Your task to perform on an android device: Open the calendar and show me this week's events? Image 0: 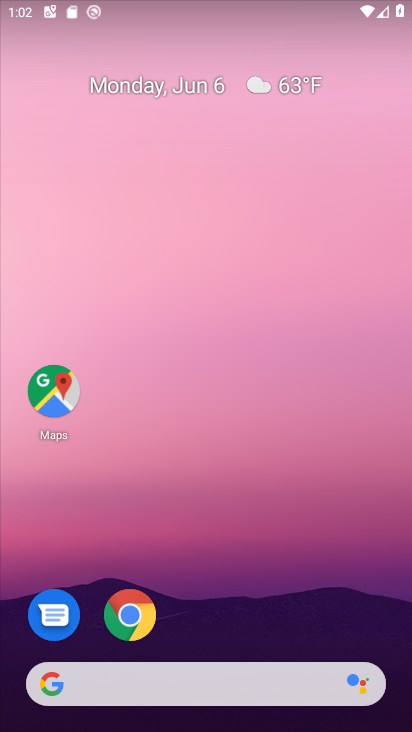
Step 0: drag from (246, 624) to (253, 4)
Your task to perform on an android device: Open the calendar and show me this week's events? Image 1: 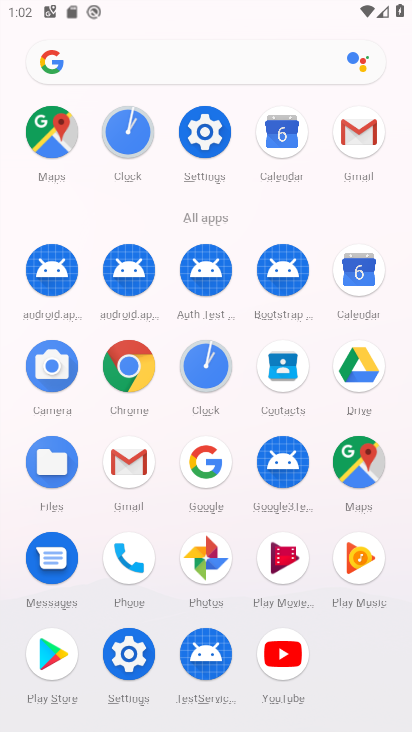
Step 1: click (351, 284)
Your task to perform on an android device: Open the calendar and show me this week's events? Image 2: 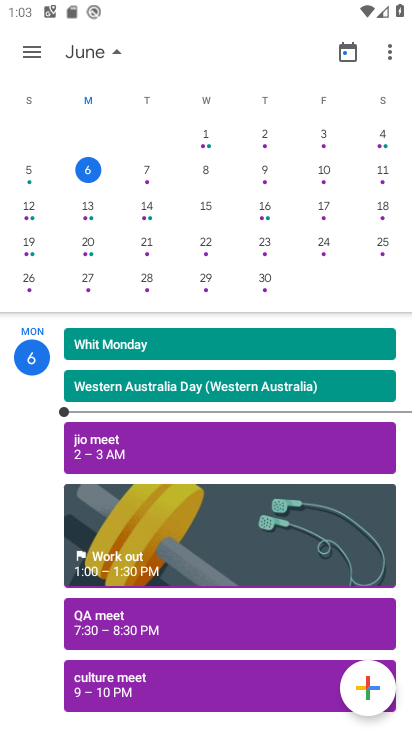
Step 2: task complete